Your task to perform on an android device: When is my next appointment? Image 0: 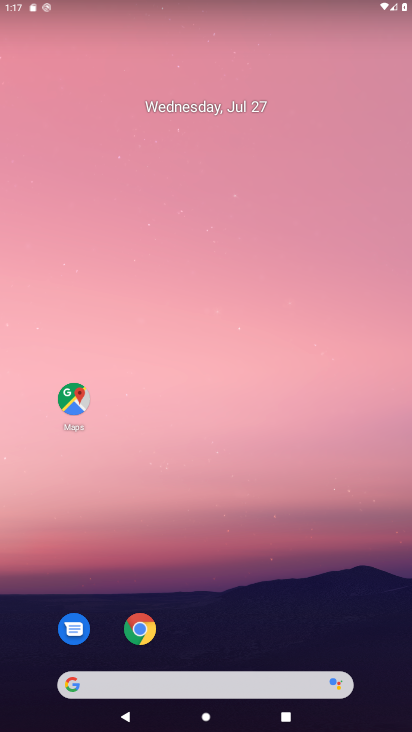
Step 0: drag from (218, 625) to (287, 61)
Your task to perform on an android device: When is my next appointment? Image 1: 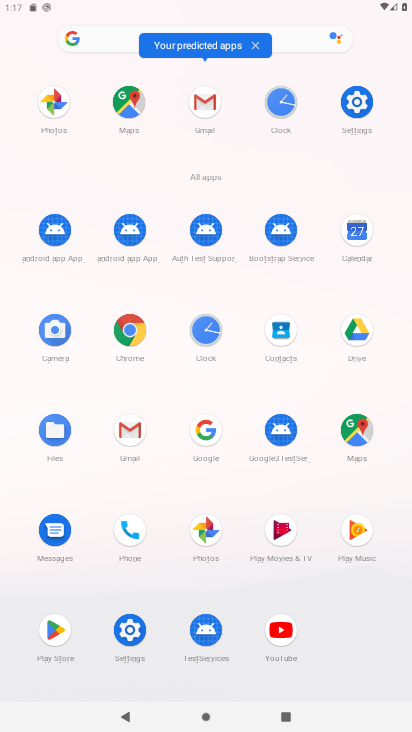
Step 1: click (360, 251)
Your task to perform on an android device: When is my next appointment? Image 2: 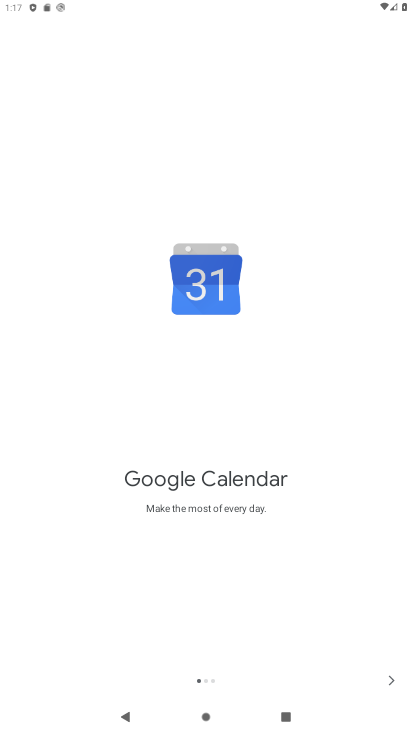
Step 2: click (391, 678)
Your task to perform on an android device: When is my next appointment? Image 3: 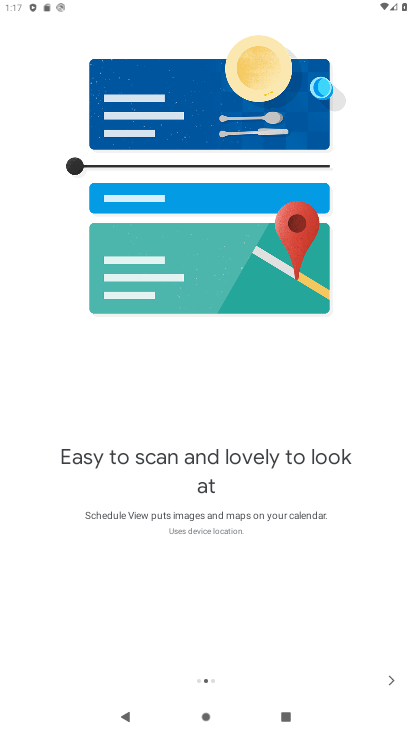
Step 3: click (387, 685)
Your task to perform on an android device: When is my next appointment? Image 4: 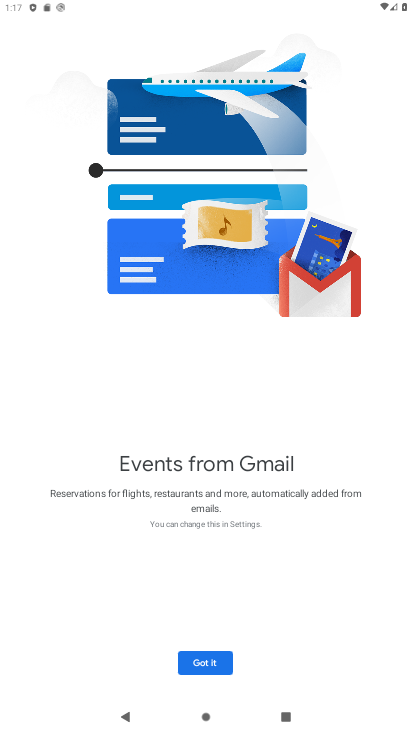
Step 4: click (218, 660)
Your task to perform on an android device: When is my next appointment? Image 5: 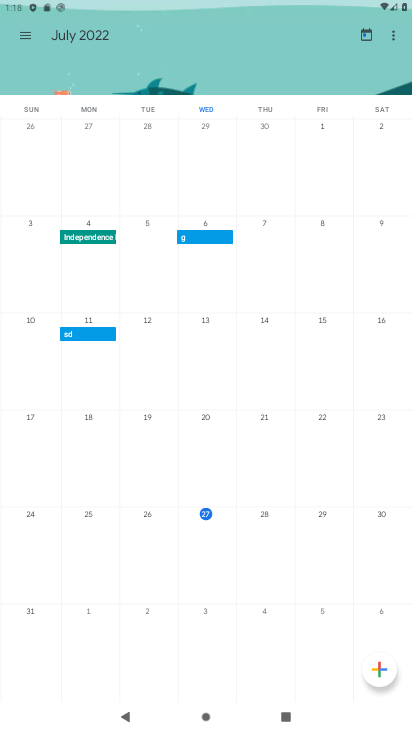
Step 5: click (22, 33)
Your task to perform on an android device: When is my next appointment? Image 6: 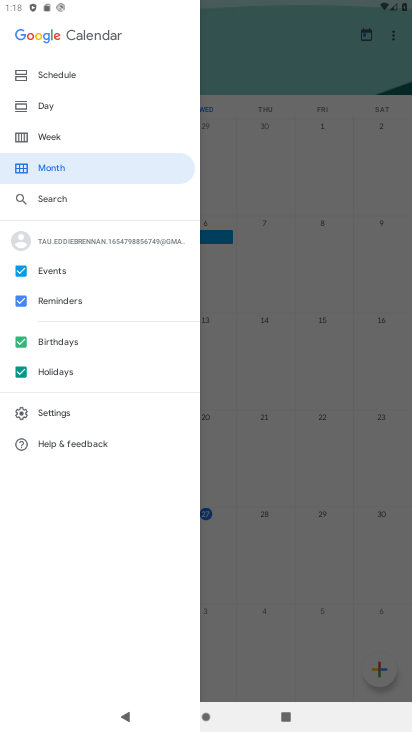
Step 6: click (52, 83)
Your task to perform on an android device: When is my next appointment? Image 7: 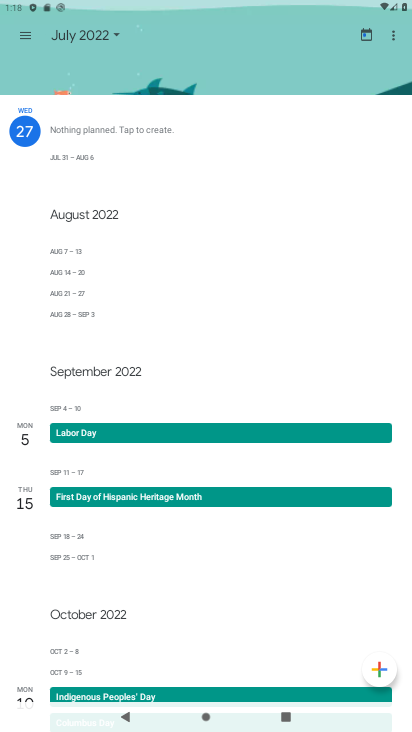
Step 7: task complete